Your task to perform on an android device: Open Google Chrome and click the shortcut for Amazon.com Image 0: 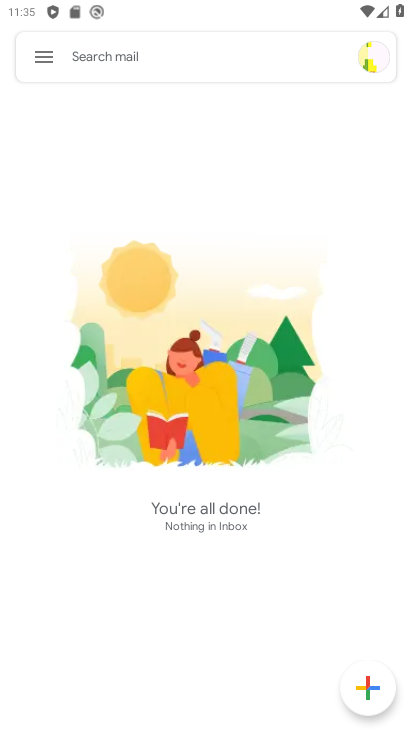
Step 0: press home button
Your task to perform on an android device: Open Google Chrome and click the shortcut for Amazon.com Image 1: 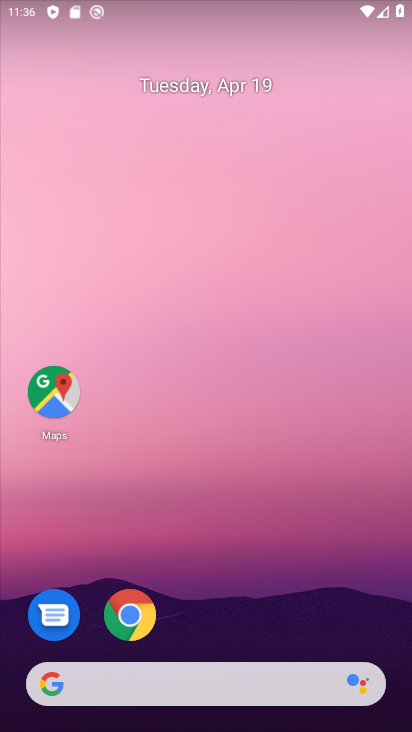
Step 1: click (136, 613)
Your task to perform on an android device: Open Google Chrome and click the shortcut for Amazon.com Image 2: 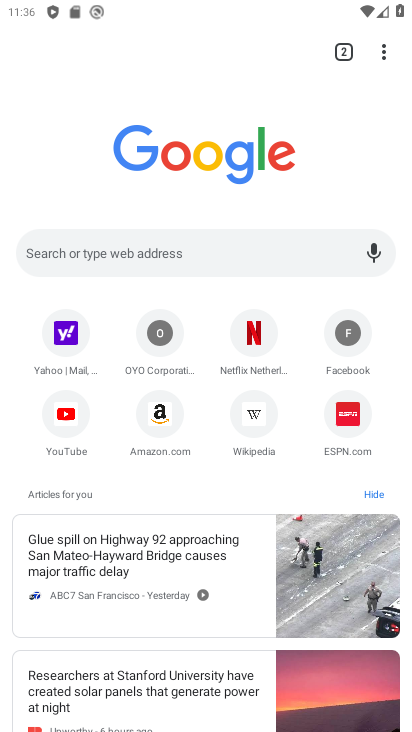
Step 2: click (376, 55)
Your task to perform on an android device: Open Google Chrome and click the shortcut for Amazon.com Image 3: 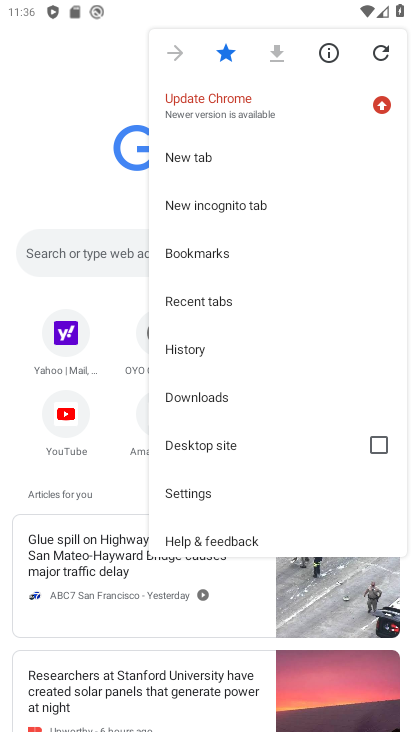
Step 3: click (82, 295)
Your task to perform on an android device: Open Google Chrome and click the shortcut for Amazon.com Image 4: 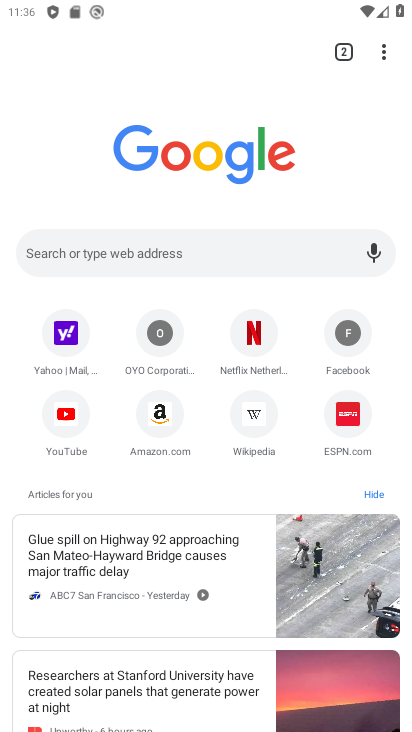
Step 4: click (161, 417)
Your task to perform on an android device: Open Google Chrome and click the shortcut for Amazon.com Image 5: 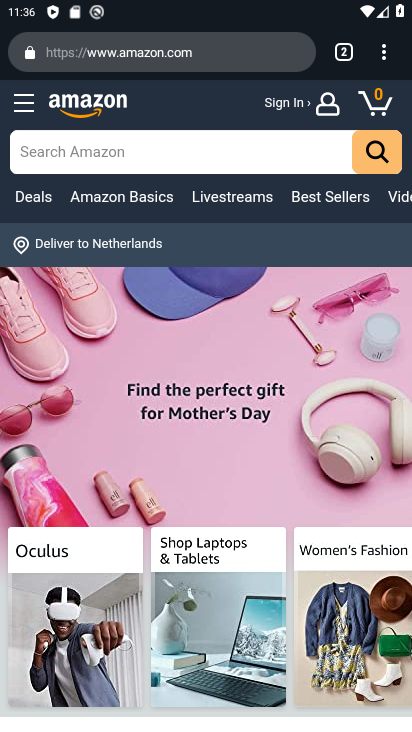
Step 5: task complete